Your task to perform on an android device: Search for vegetarian restaurants on Maps Image 0: 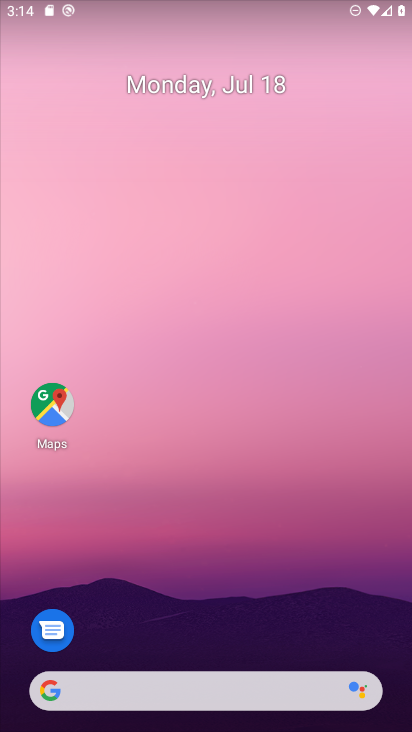
Step 0: drag from (170, 648) to (173, 80)
Your task to perform on an android device: Search for vegetarian restaurants on Maps Image 1: 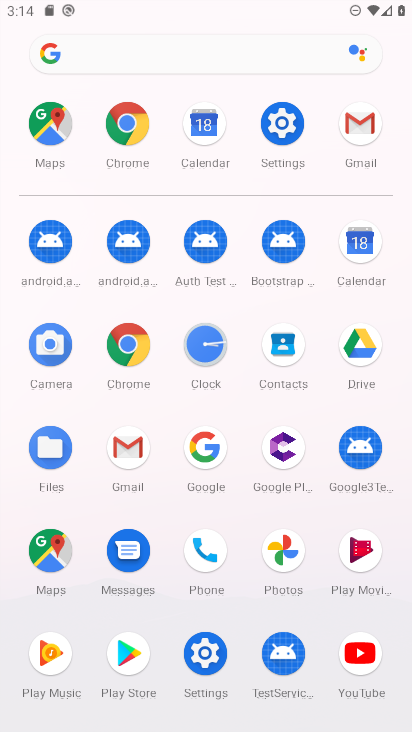
Step 1: click (52, 549)
Your task to perform on an android device: Search for vegetarian restaurants on Maps Image 2: 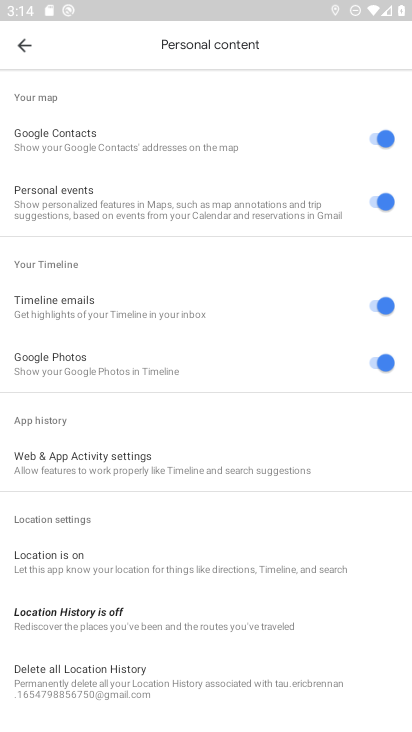
Step 2: press home button
Your task to perform on an android device: Search for vegetarian restaurants on Maps Image 3: 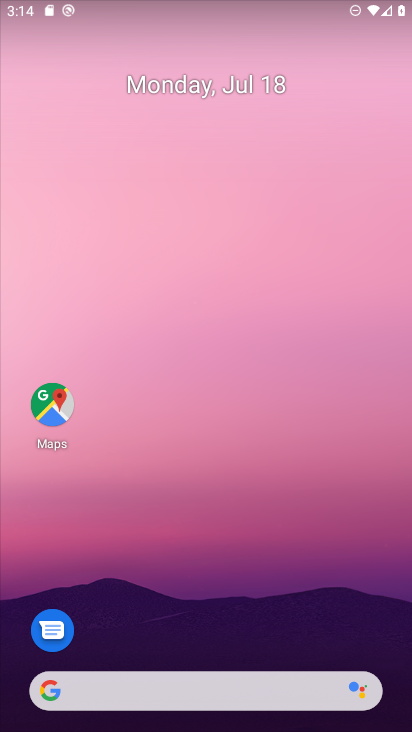
Step 3: drag from (184, 633) to (283, 133)
Your task to perform on an android device: Search for vegetarian restaurants on Maps Image 4: 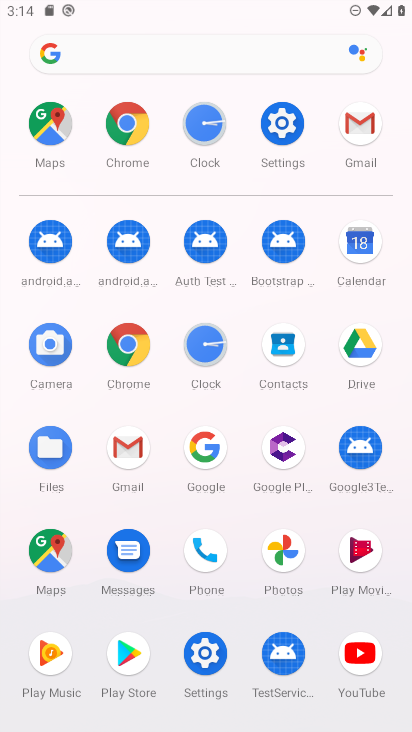
Step 4: click (49, 555)
Your task to perform on an android device: Search for vegetarian restaurants on Maps Image 5: 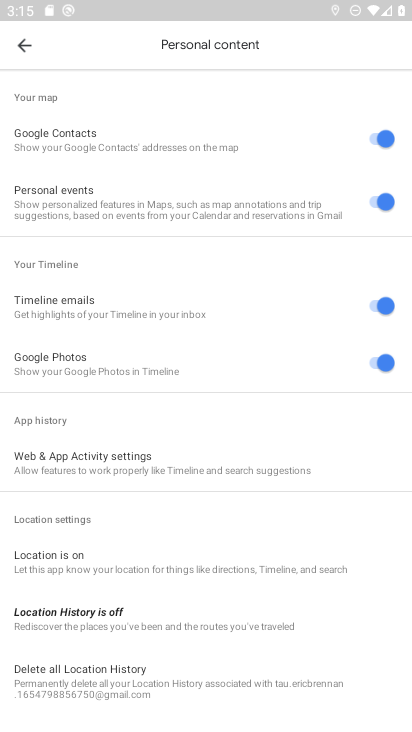
Step 5: press back button
Your task to perform on an android device: Search for vegetarian restaurants on Maps Image 6: 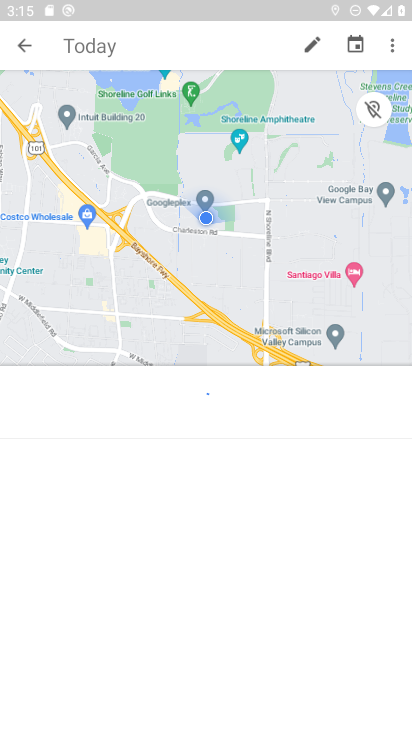
Step 6: press back button
Your task to perform on an android device: Search for vegetarian restaurants on Maps Image 7: 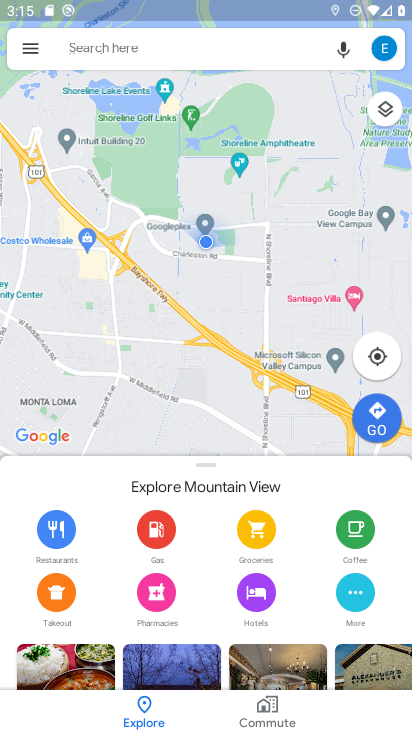
Step 7: click (256, 55)
Your task to perform on an android device: Search for vegetarian restaurants on Maps Image 8: 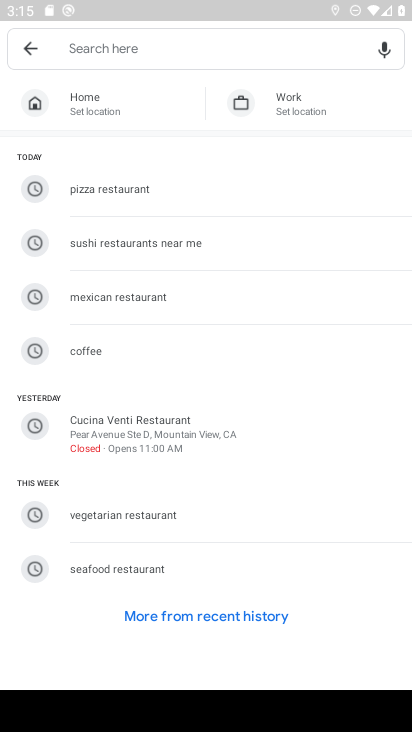
Step 8: click (172, 521)
Your task to perform on an android device: Search for vegetarian restaurants on Maps Image 9: 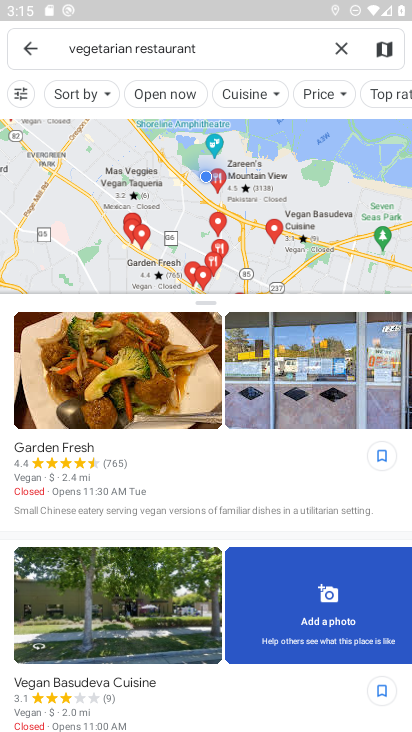
Step 9: task complete